Your task to perform on an android device: Open Google Maps and go to "Timeline" Image 0: 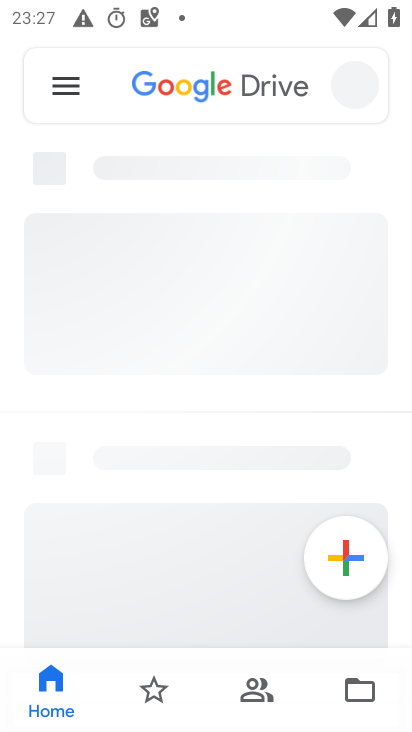
Step 0: click (241, 666)
Your task to perform on an android device: Open Google Maps and go to "Timeline" Image 1: 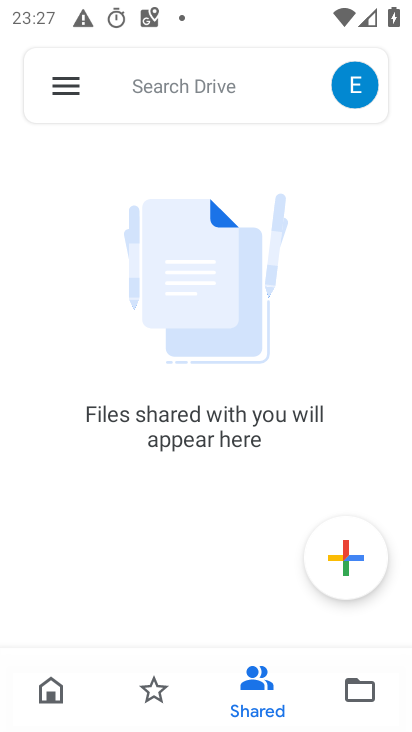
Step 1: press back button
Your task to perform on an android device: Open Google Maps and go to "Timeline" Image 2: 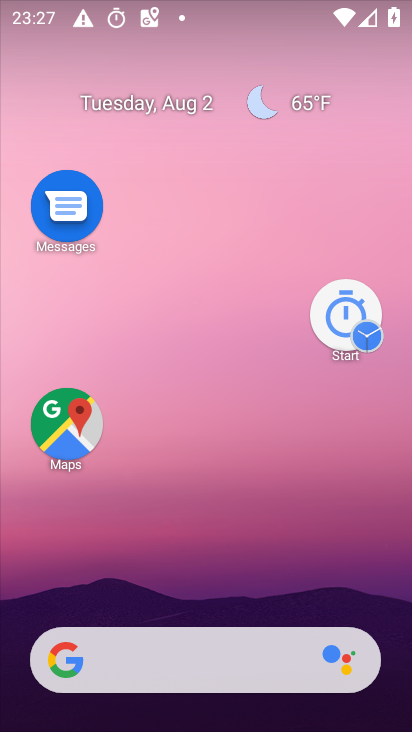
Step 2: drag from (207, 585) to (147, 138)
Your task to perform on an android device: Open Google Maps and go to "Timeline" Image 3: 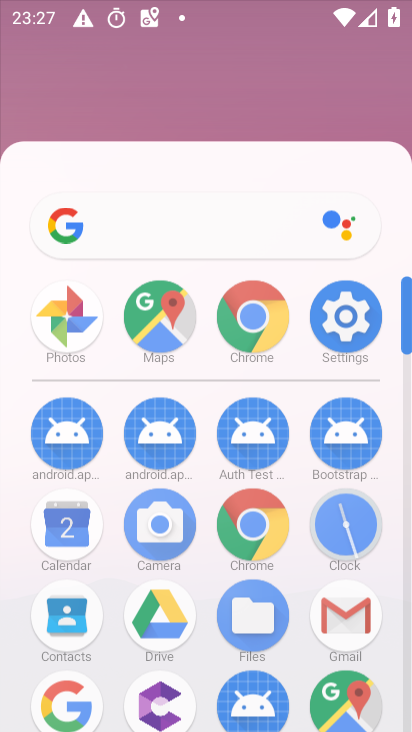
Step 3: drag from (214, 389) to (174, 140)
Your task to perform on an android device: Open Google Maps and go to "Timeline" Image 4: 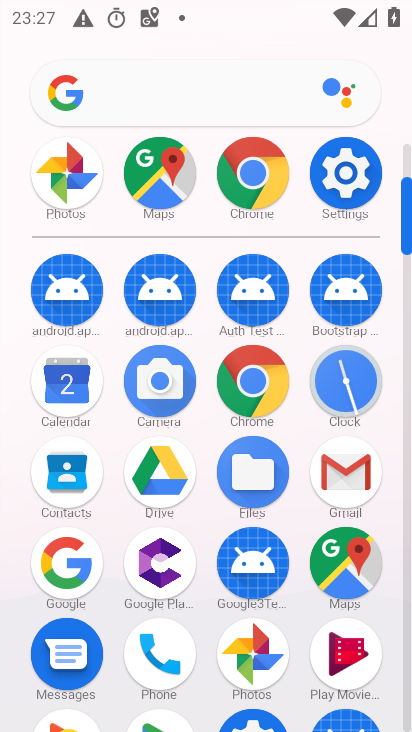
Step 4: click (335, 161)
Your task to perform on an android device: Open Google Maps and go to "Timeline" Image 5: 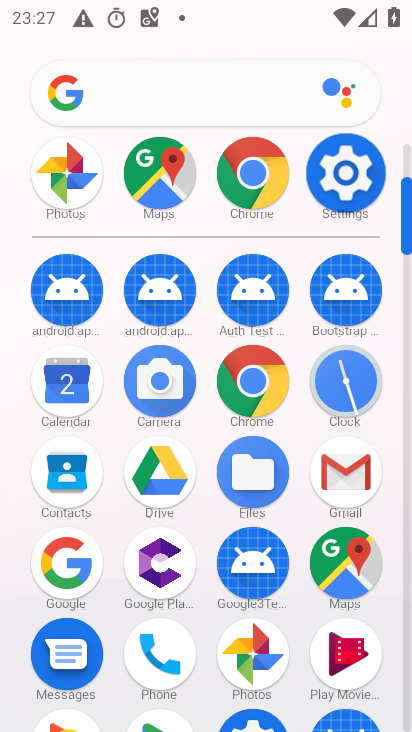
Step 5: click (329, 170)
Your task to perform on an android device: Open Google Maps and go to "Timeline" Image 6: 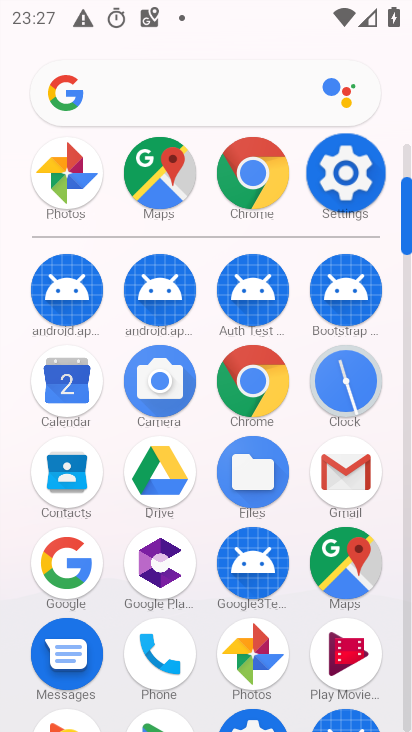
Step 6: click (333, 170)
Your task to perform on an android device: Open Google Maps and go to "Timeline" Image 7: 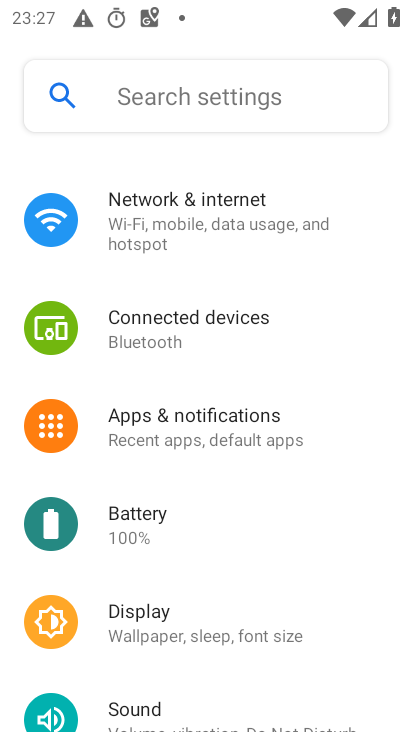
Step 7: click (339, 178)
Your task to perform on an android device: Open Google Maps and go to "Timeline" Image 8: 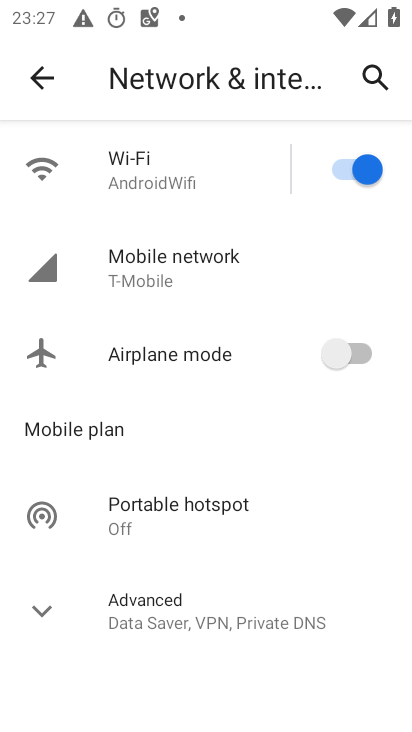
Step 8: click (45, 94)
Your task to perform on an android device: Open Google Maps and go to "Timeline" Image 9: 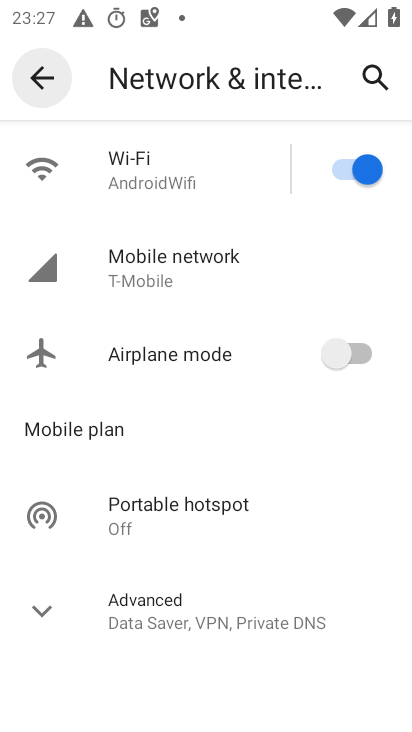
Step 9: click (34, 81)
Your task to perform on an android device: Open Google Maps and go to "Timeline" Image 10: 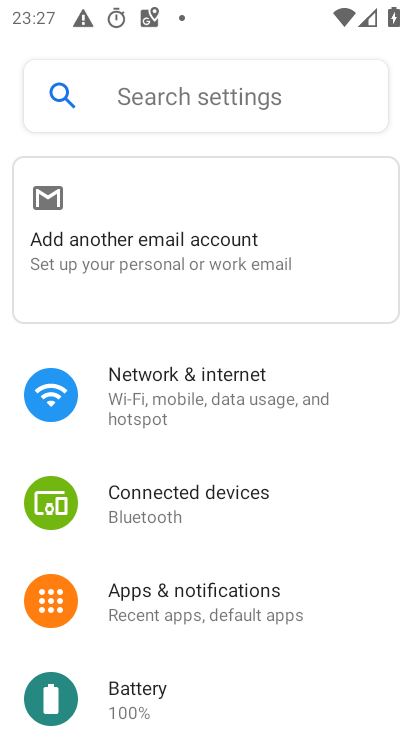
Step 10: press back button
Your task to perform on an android device: Open Google Maps and go to "Timeline" Image 11: 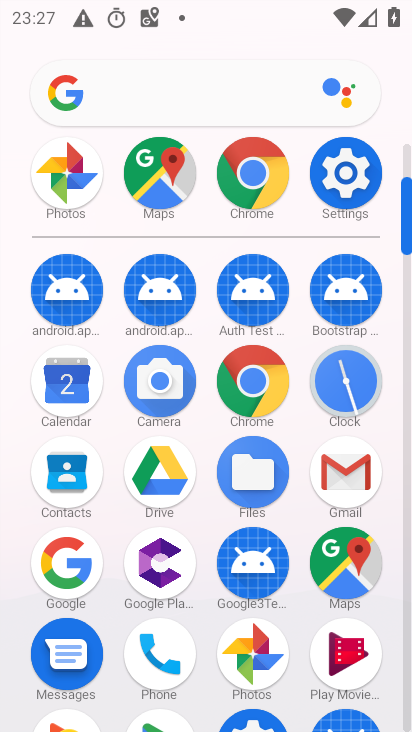
Step 11: click (161, 178)
Your task to perform on an android device: Open Google Maps and go to "Timeline" Image 12: 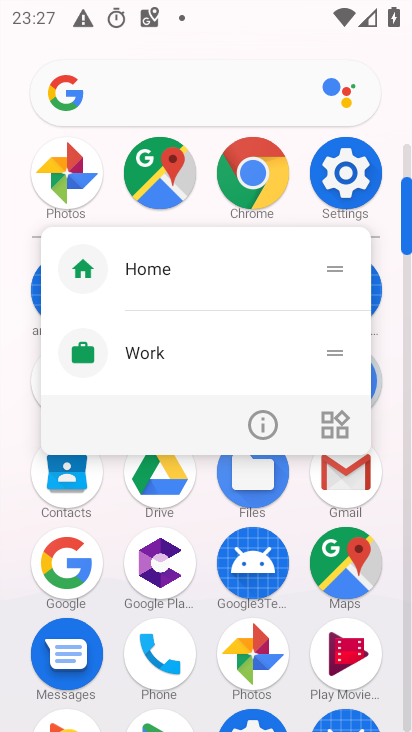
Step 12: click (153, 255)
Your task to perform on an android device: Open Google Maps and go to "Timeline" Image 13: 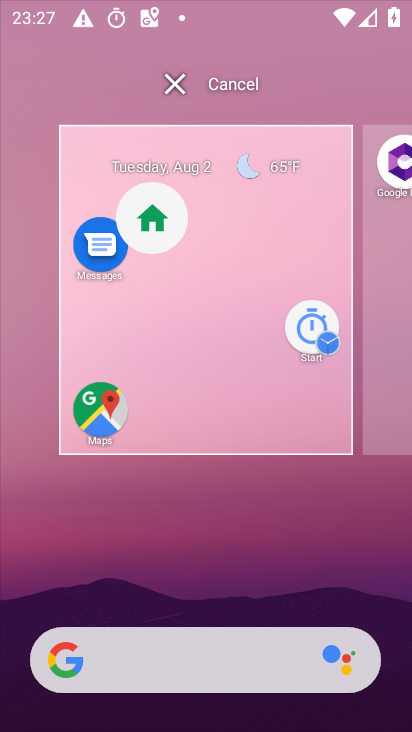
Step 13: click (151, 261)
Your task to perform on an android device: Open Google Maps and go to "Timeline" Image 14: 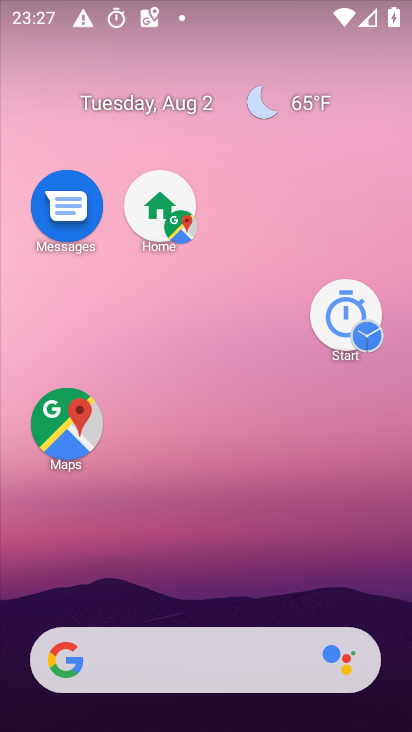
Step 14: press back button
Your task to perform on an android device: Open Google Maps and go to "Timeline" Image 15: 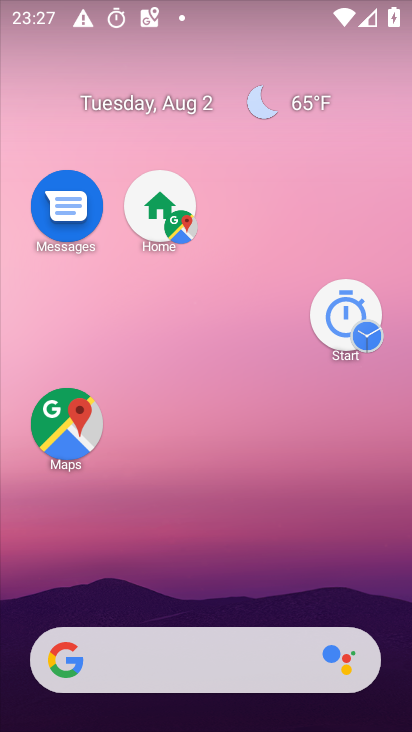
Step 15: drag from (183, 522) to (153, 28)
Your task to perform on an android device: Open Google Maps and go to "Timeline" Image 16: 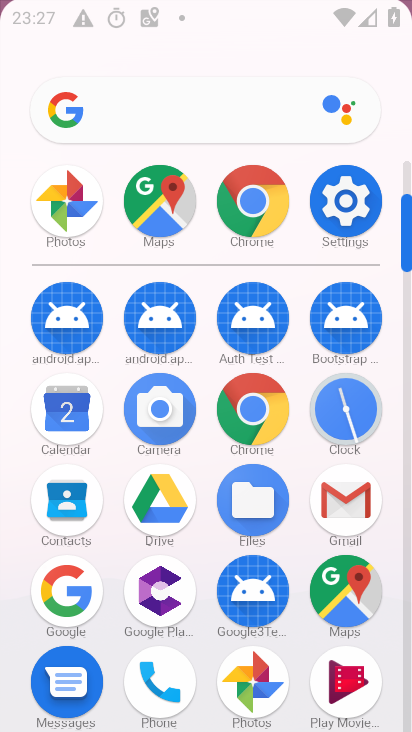
Step 16: click (168, 250)
Your task to perform on an android device: Open Google Maps and go to "Timeline" Image 17: 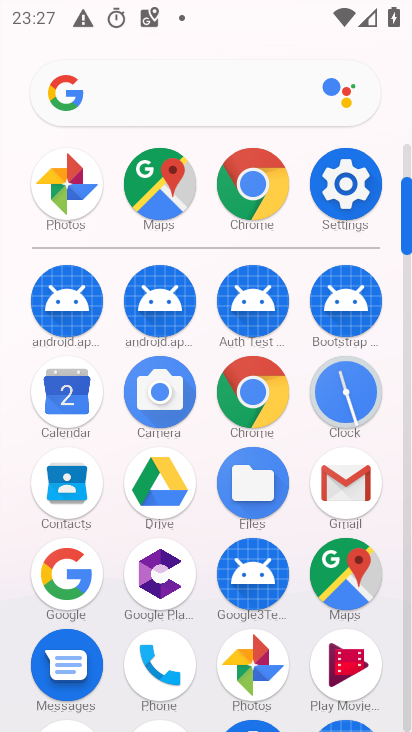
Step 17: click (165, 172)
Your task to perform on an android device: Open Google Maps and go to "Timeline" Image 18: 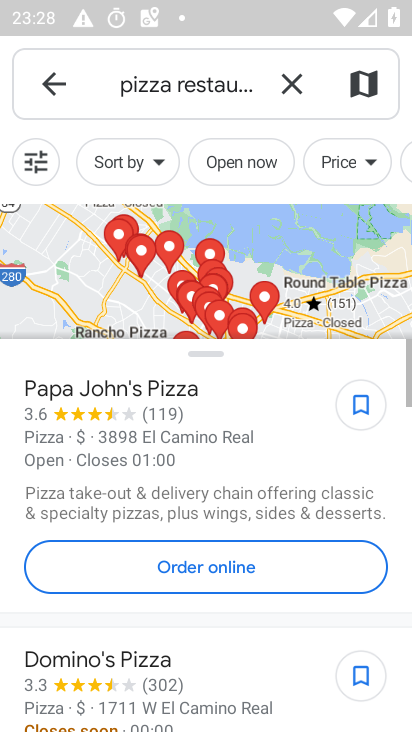
Step 18: click (56, 80)
Your task to perform on an android device: Open Google Maps and go to "Timeline" Image 19: 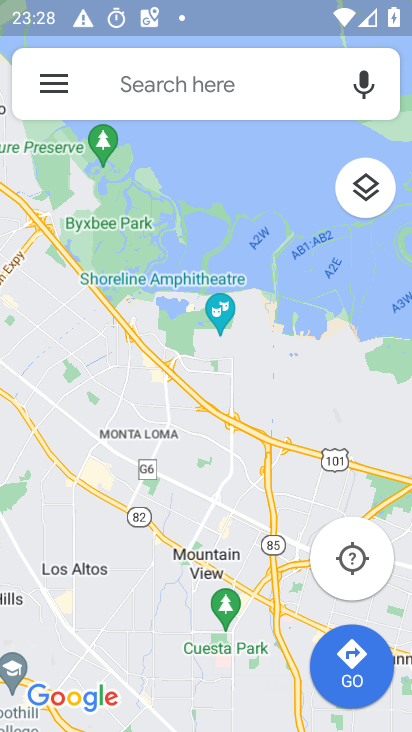
Step 19: click (40, 75)
Your task to perform on an android device: Open Google Maps and go to "Timeline" Image 20: 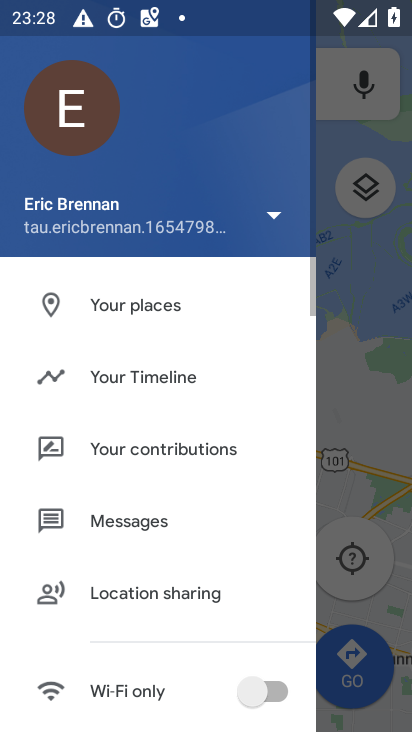
Step 20: click (48, 83)
Your task to perform on an android device: Open Google Maps and go to "Timeline" Image 21: 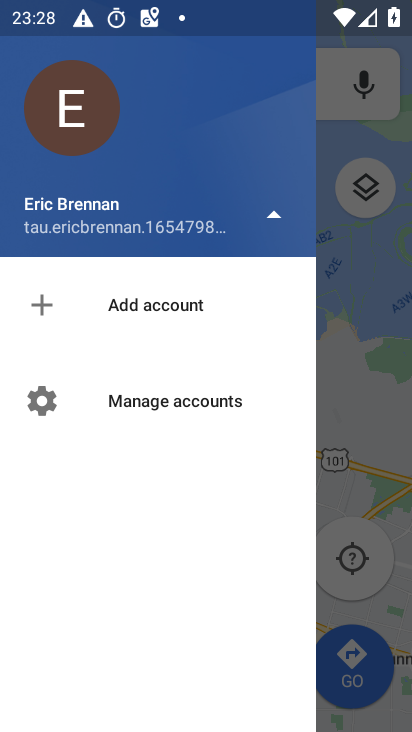
Step 21: click (131, 366)
Your task to perform on an android device: Open Google Maps and go to "Timeline" Image 22: 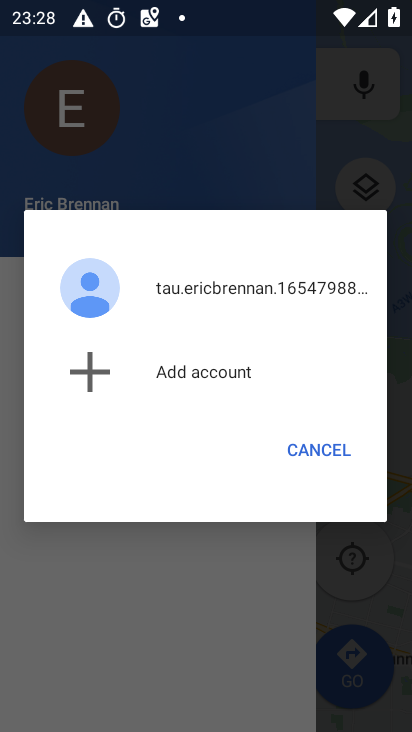
Step 22: click (178, 117)
Your task to perform on an android device: Open Google Maps and go to "Timeline" Image 23: 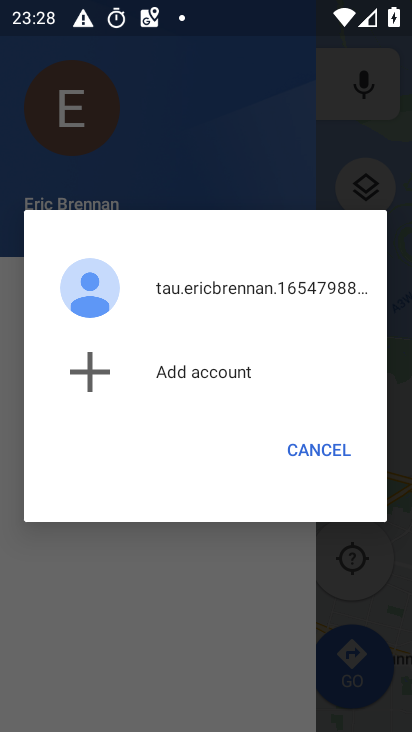
Step 23: click (176, 120)
Your task to perform on an android device: Open Google Maps and go to "Timeline" Image 24: 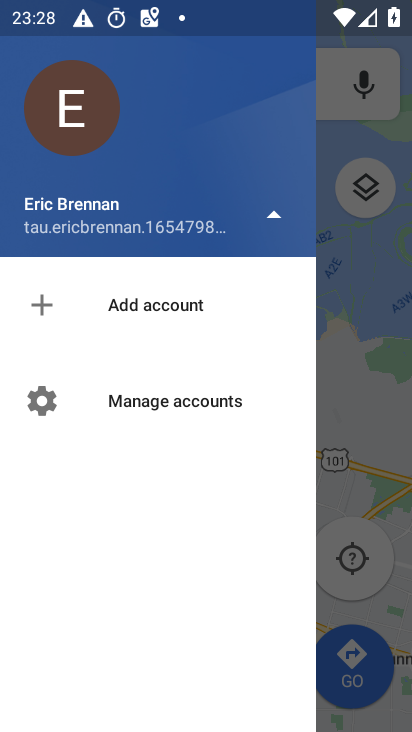
Step 24: click (177, 119)
Your task to perform on an android device: Open Google Maps and go to "Timeline" Image 25: 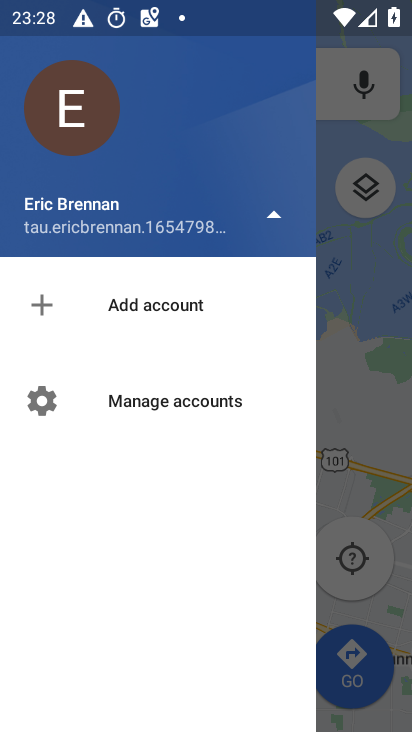
Step 25: click (180, 120)
Your task to perform on an android device: Open Google Maps and go to "Timeline" Image 26: 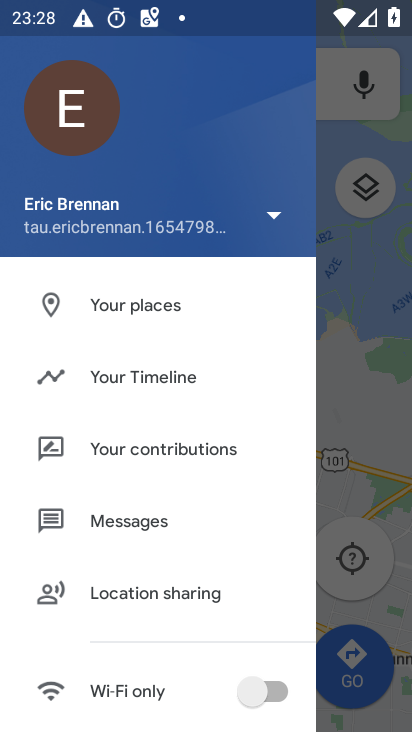
Step 26: click (148, 378)
Your task to perform on an android device: Open Google Maps and go to "Timeline" Image 27: 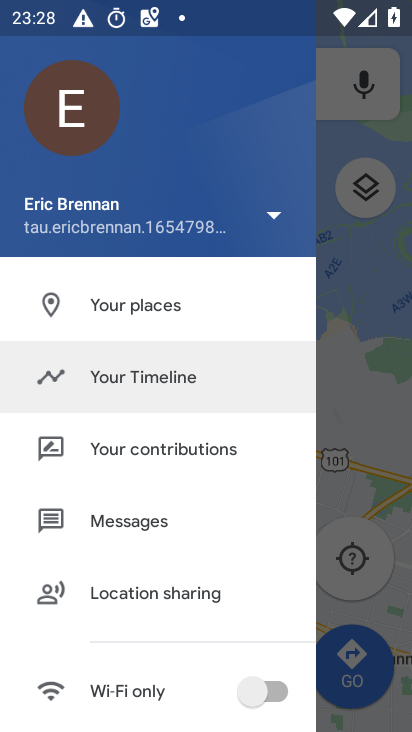
Step 27: click (142, 376)
Your task to perform on an android device: Open Google Maps and go to "Timeline" Image 28: 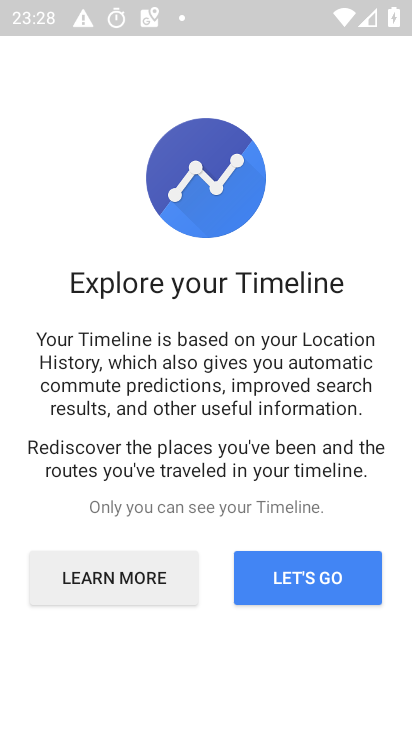
Step 28: click (311, 590)
Your task to perform on an android device: Open Google Maps and go to "Timeline" Image 29: 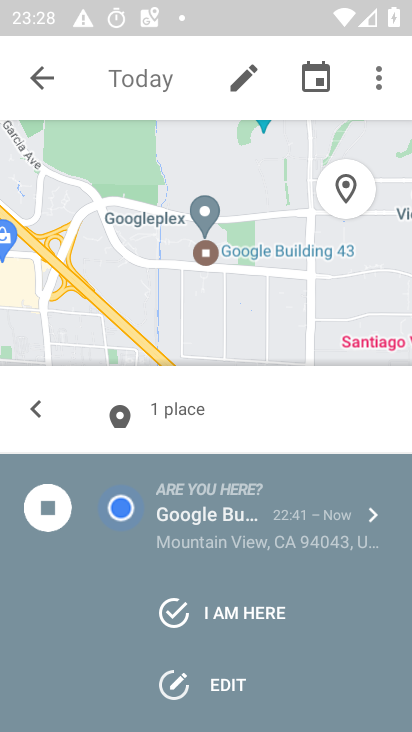
Step 29: task complete